Your task to perform on an android device: open app "Duolingo: language lessons" Image 0: 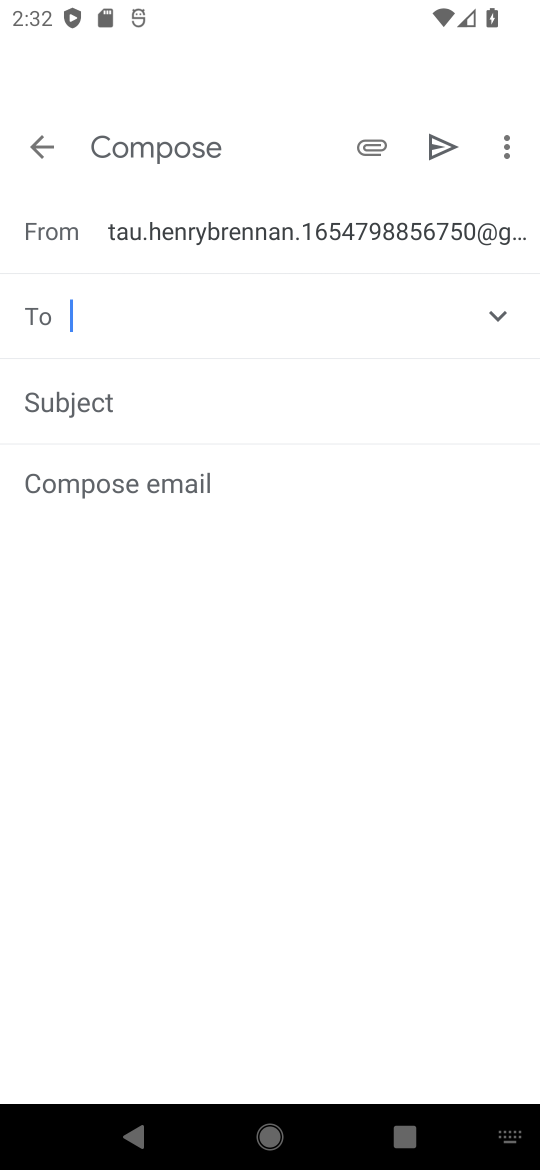
Step 0: press home button
Your task to perform on an android device: open app "Duolingo: language lessons" Image 1: 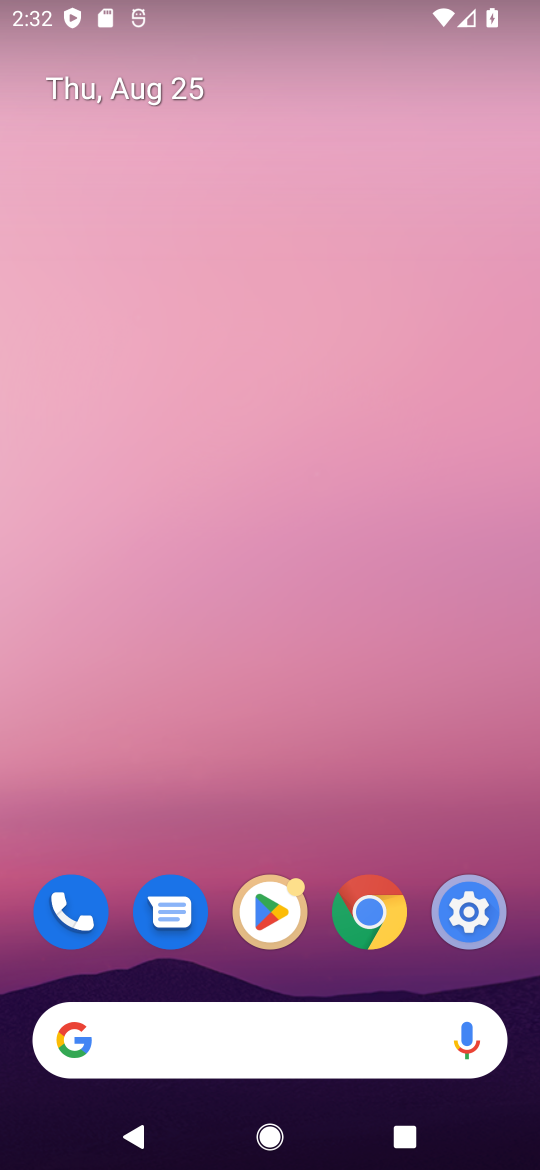
Step 1: drag from (177, 993) to (171, 592)
Your task to perform on an android device: open app "Duolingo: language lessons" Image 2: 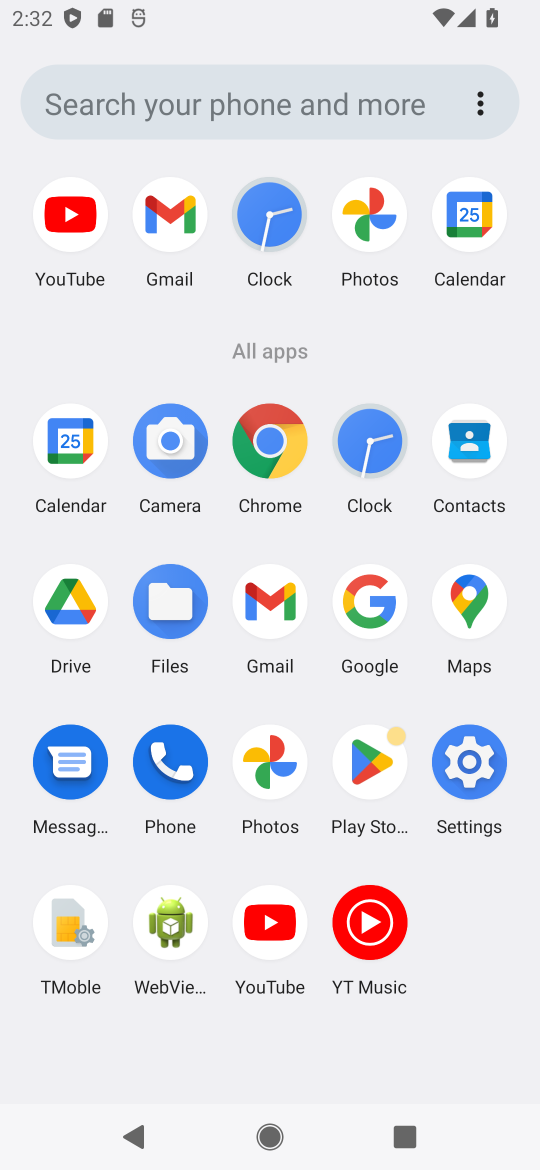
Step 2: click (366, 766)
Your task to perform on an android device: open app "Duolingo: language lessons" Image 3: 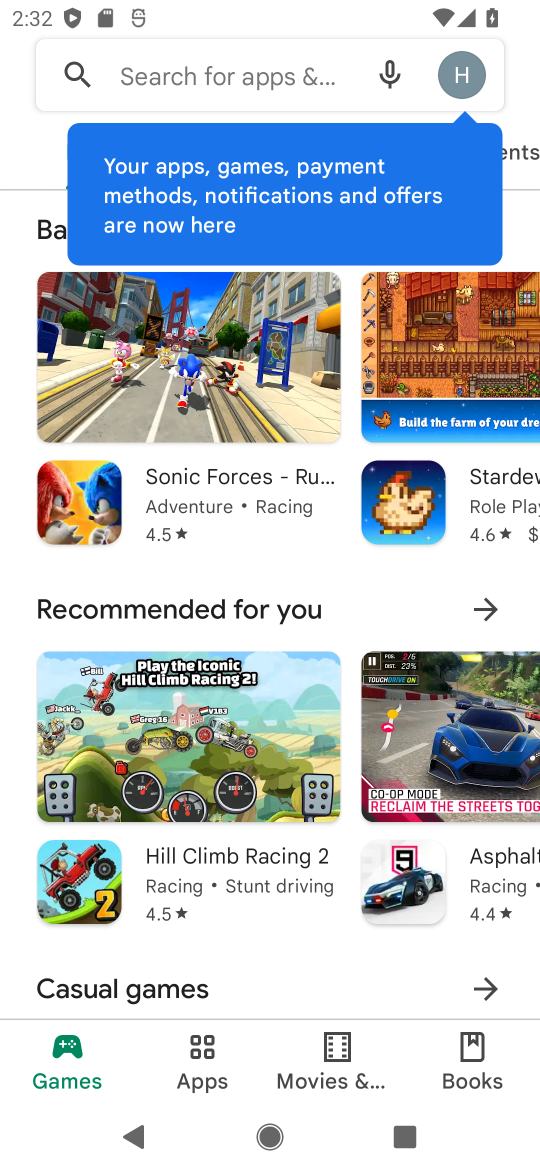
Step 3: click (311, 58)
Your task to perform on an android device: open app "Duolingo: language lessons" Image 4: 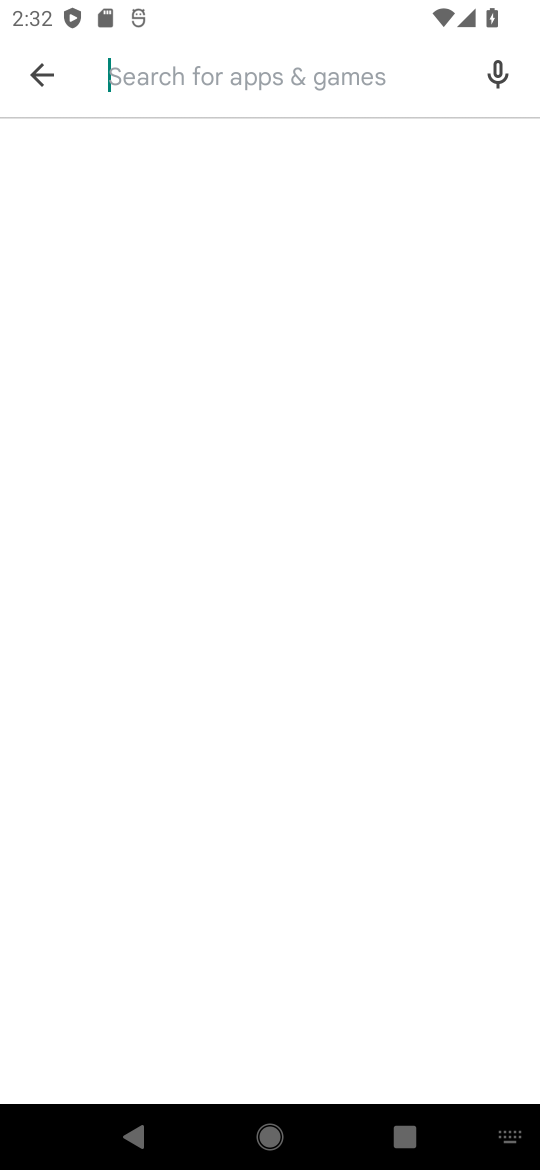
Step 4: type "Duolingo: language lessons"
Your task to perform on an android device: open app "Duolingo: language lessons" Image 5: 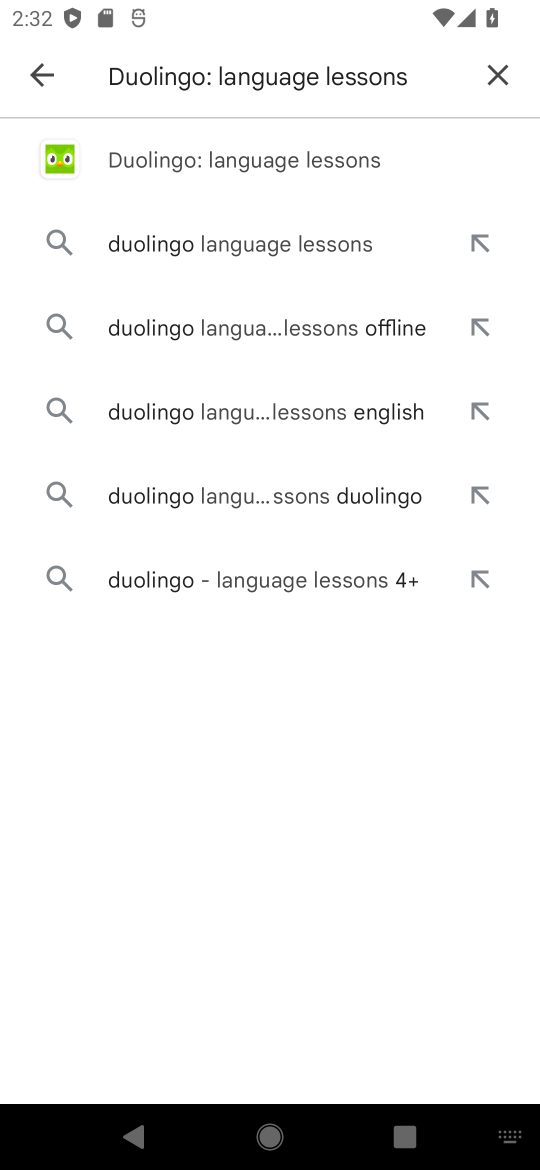
Step 5: click (165, 158)
Your task to perform on an android device: open app "Duolingo: language lessons" Image 6: 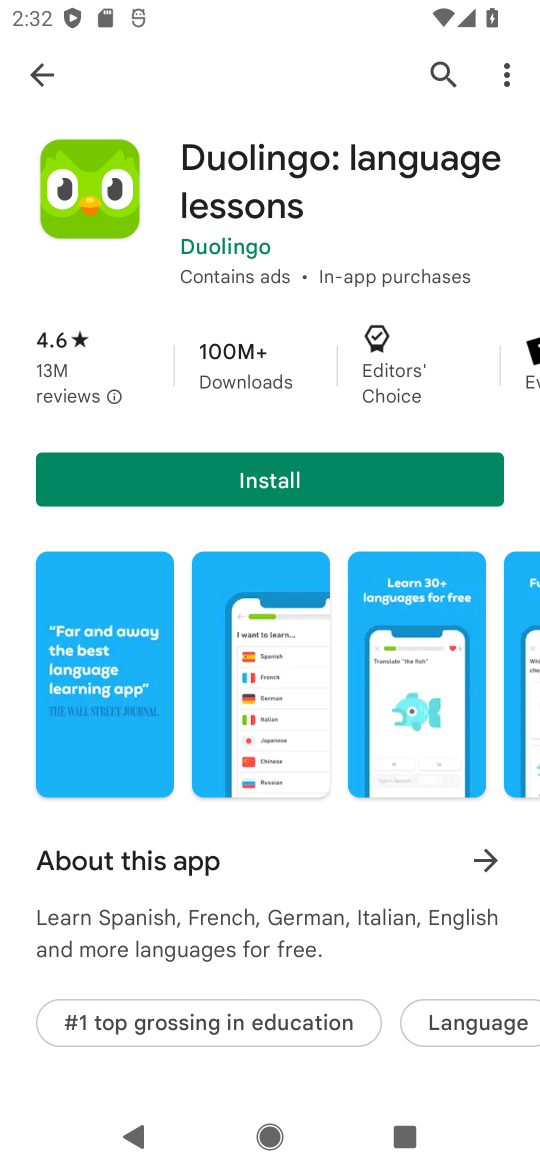
Step 6: click (353, 475)
Your task to perform on an android device: open app "Duolingo: language lessons" Image 7: 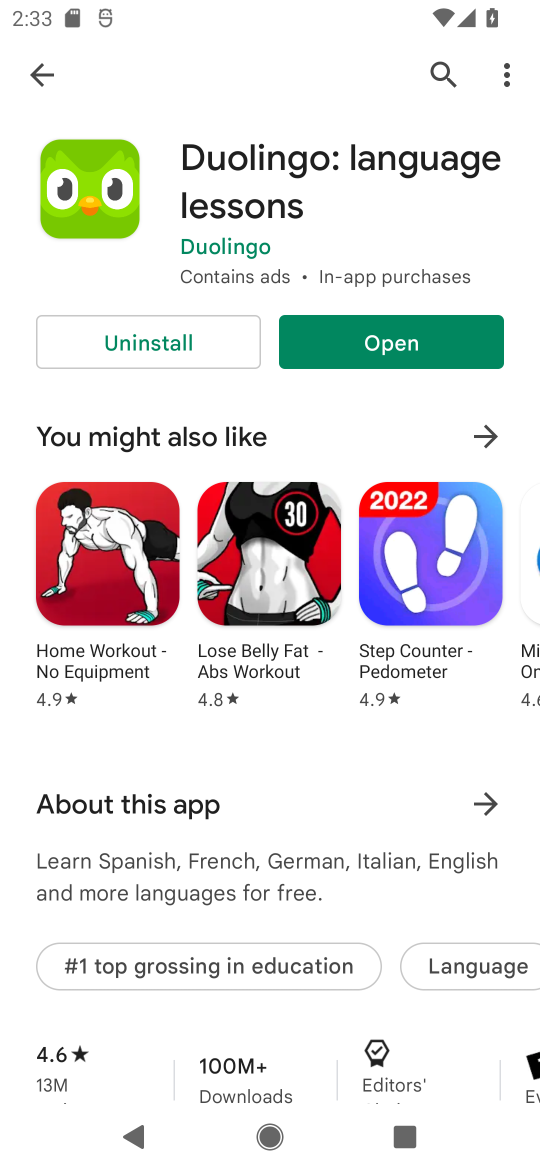
Step 7: click (419, 337)
Your task to perform on an android device: open app "Duolingo: language lessons" Image 8: 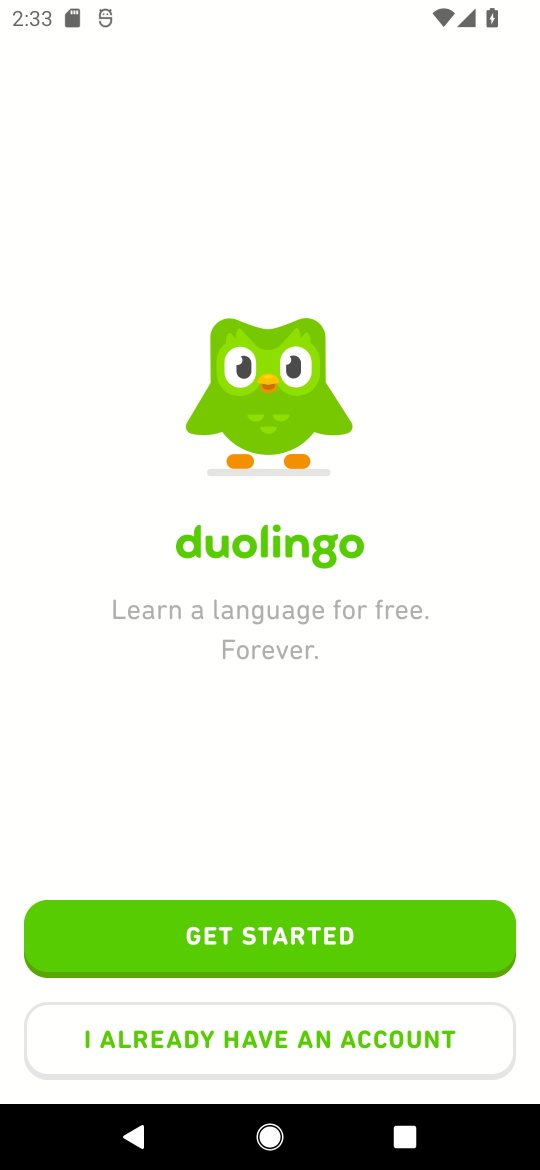
Step 8: task complete